Your task to perform on an android device: What's on my calendar tomorrow? Image 0: 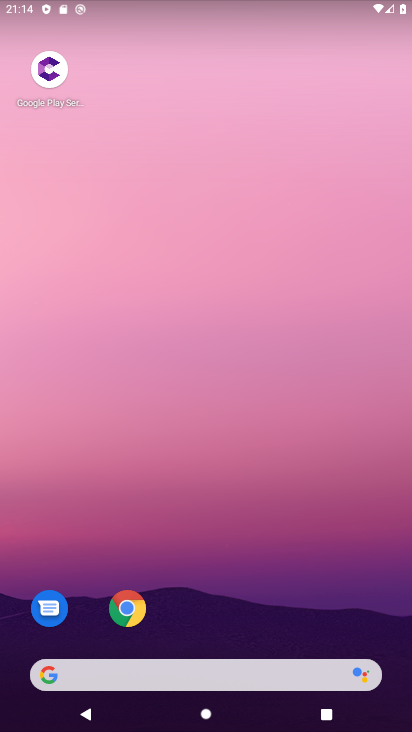
Step 0: drag from (202, 235) to (245, 196)
Your task to perform on an android device: What's on my calendar tomorrow? Image 1: 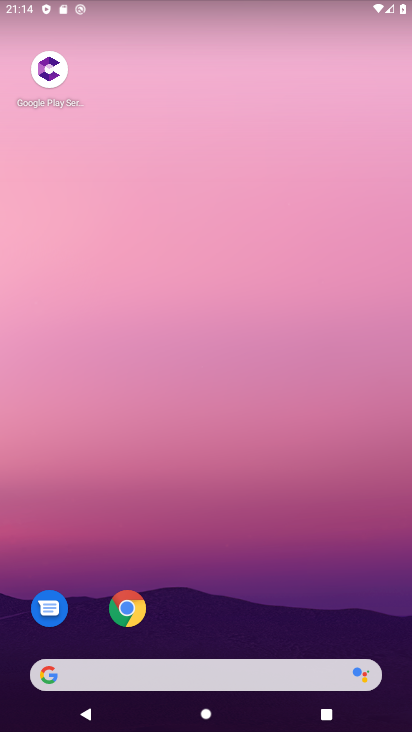
Step 1: drag from (204, 432) to (188, 24)
Your task to perform on an android device: What's on my calendar tomorrow? Image 2: 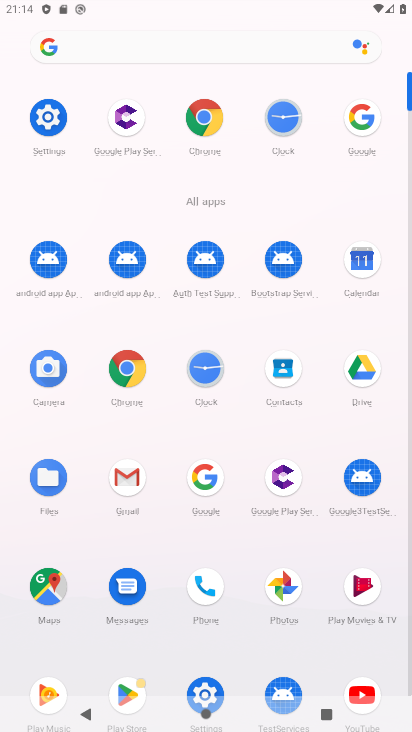
Step 2: click (355, 268)
Your task to perform on an android device: What's on my calendar tomorrow? Image 3: 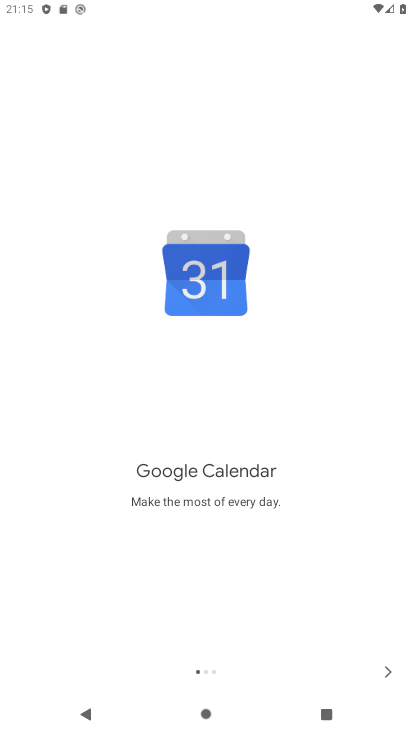
Step 3: click (387, 674)
Your task to perform on an android device: What's on my calendar tomorrow? Image 4: 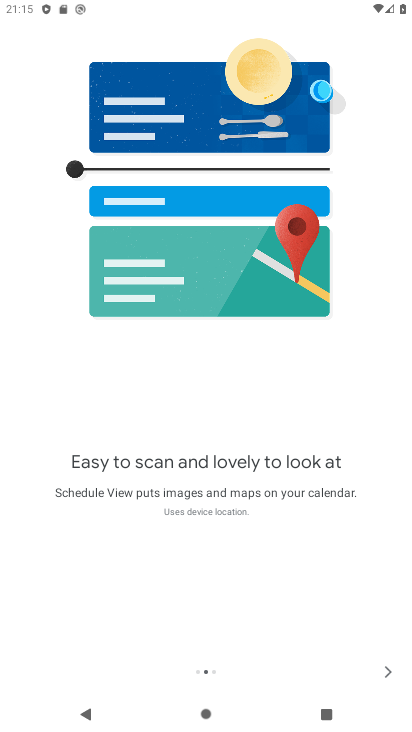
Step 4: click (387, 674)
Your task to perform on an android device: What's on my calendar tomorrow? Image 5: 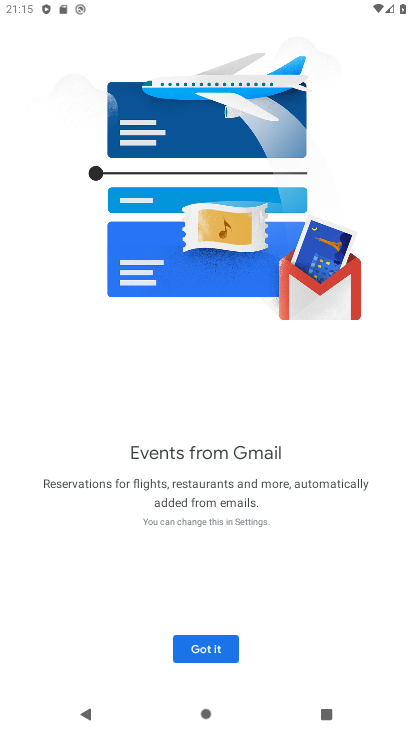
Step 5: click (387, 674)
Your task to perform on an android device: What's on my calendar tomorrow? Image 6: 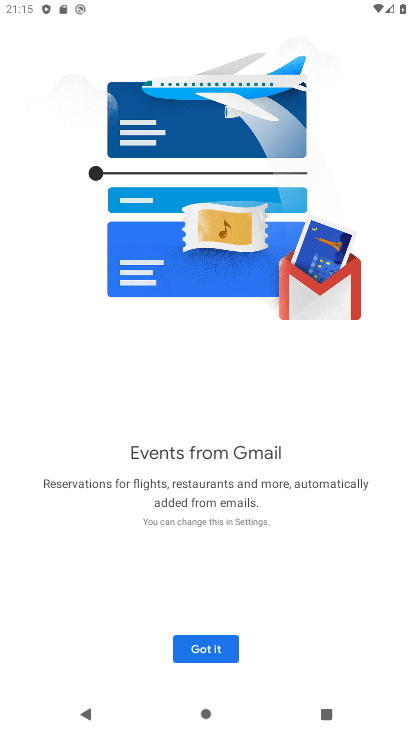
Step 6: click (195, 639)
Your task to perform on an android device: What's on my calendar tomorrow? Image 7: 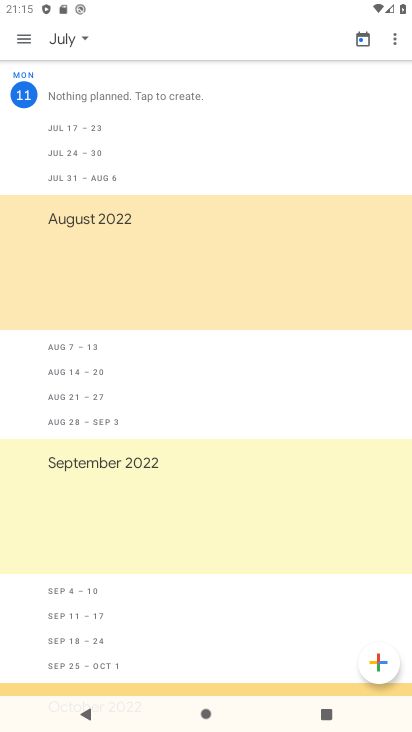
Step 7: click (31, 30)
Your task to perform on an android device: What's on my calendar tomorrow? Image 8: 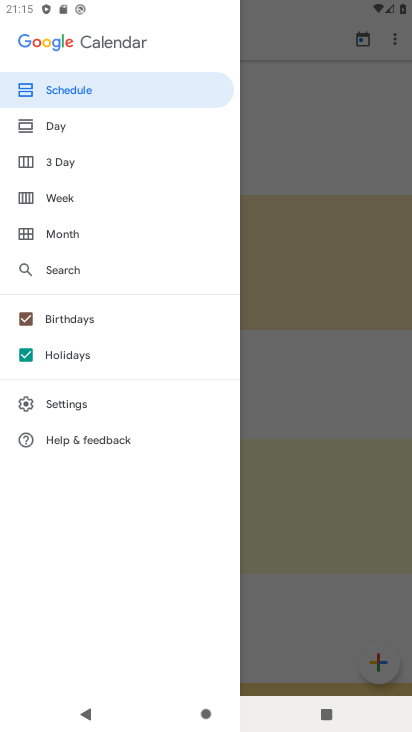
Step 8: click (56, 204)
Your task to perform on an android device: What's on my calendar tomorrow? Image 9: 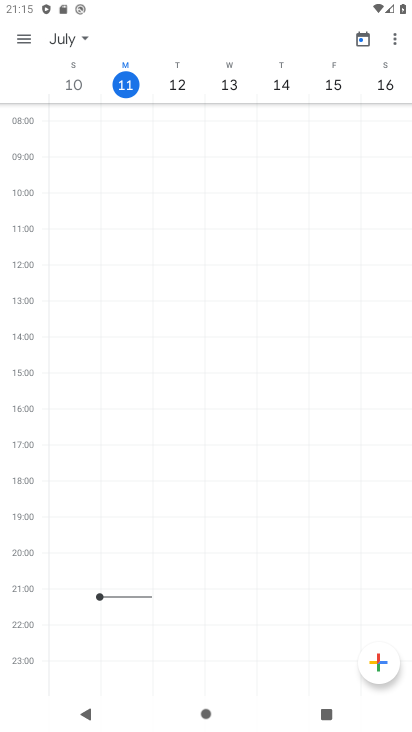
Step 9: task complete